Your task to perform on an android device: change alarm snooze length Image 0: 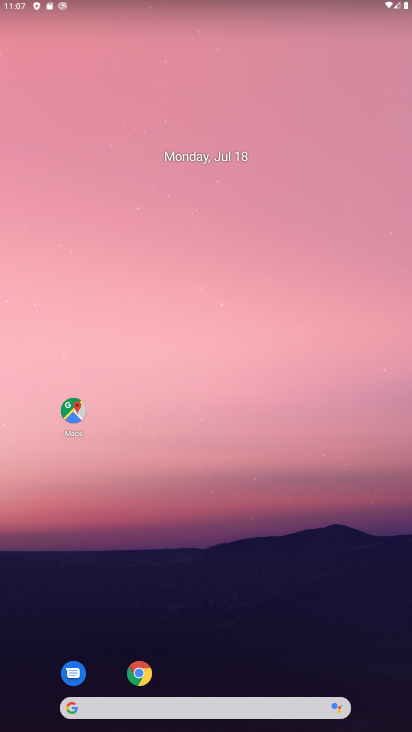
Step 0: press home button
Your task to perform on an android device: change alarm snooze length Image 1: 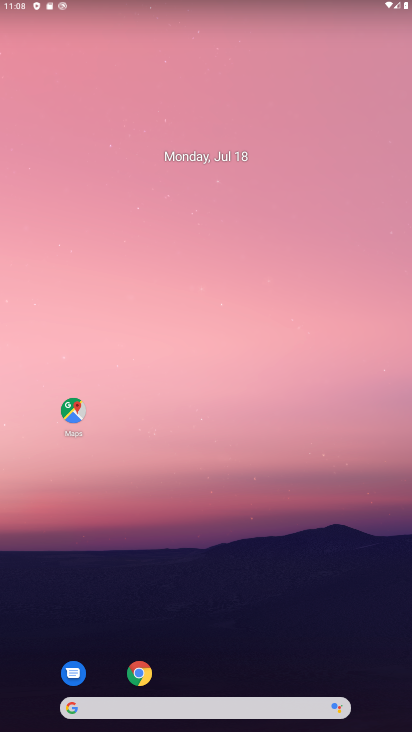
Step 1: drag from (229, 684) to (247, 1)
Your task to perform on an android device: change alarm snooze length Image 2: 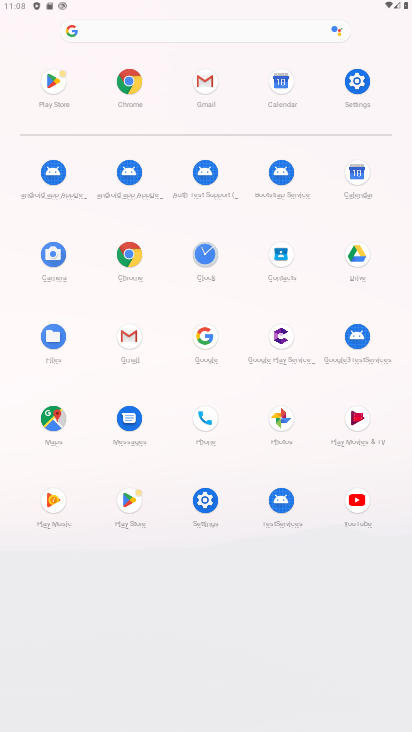
Step 2: click (206, 246)
Your task to perform on an android device: change alarm snooze length Image 3: 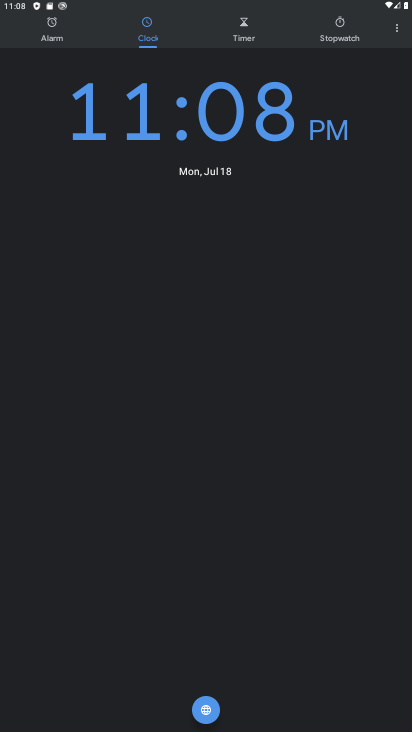
Step 3: click (399, 28)
Your task to perform on an android device: change alarm snooze length Image 4: 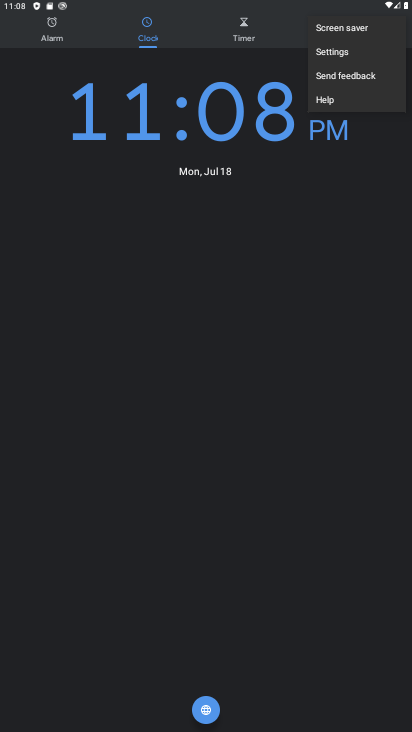
Step 4: click (356, 48)
Your task to perform on an android device: change alarm snooze length Image 5: 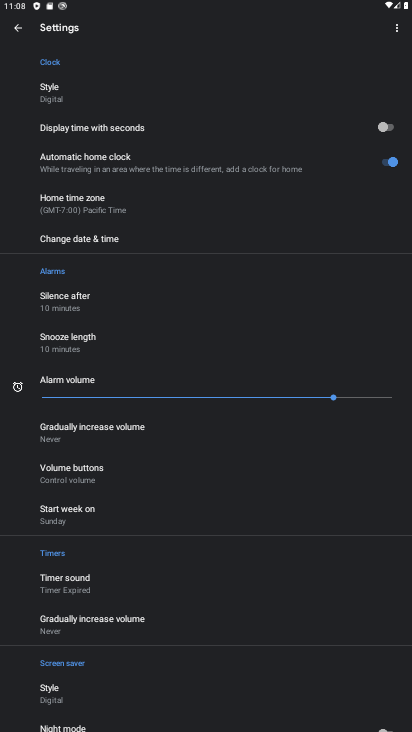
Step 5: click (109, 339)
Your task to perform on an android device: change alarm snooze length Image 6: 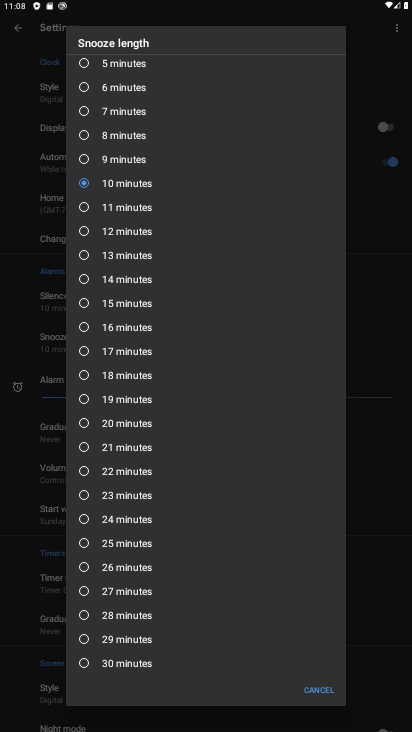
Step 6: click (82, 88)
Your task to perform on an android device: change alarm snooze length Image 7: 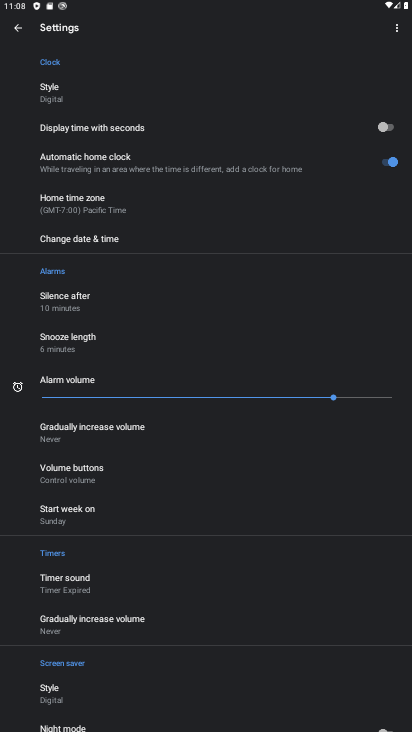
Step 7: task complete